Your task to perform on an android device: Open Android settings Image 0: 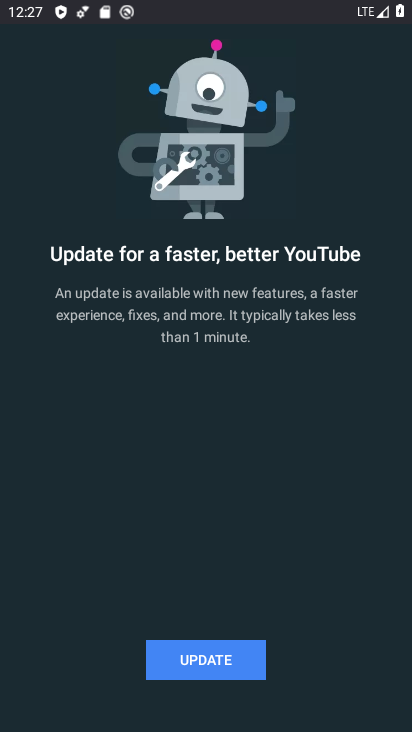
Step 0: press home button
Your task to perform on an android device: Open Android settings Image 1: 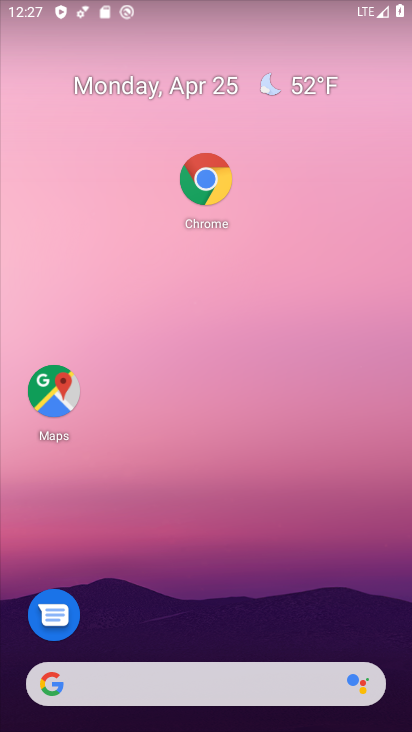
Step 1: drag from (175, 575) to (352, 136)
Your task to perform on an android device: Open Android settings Image 2: 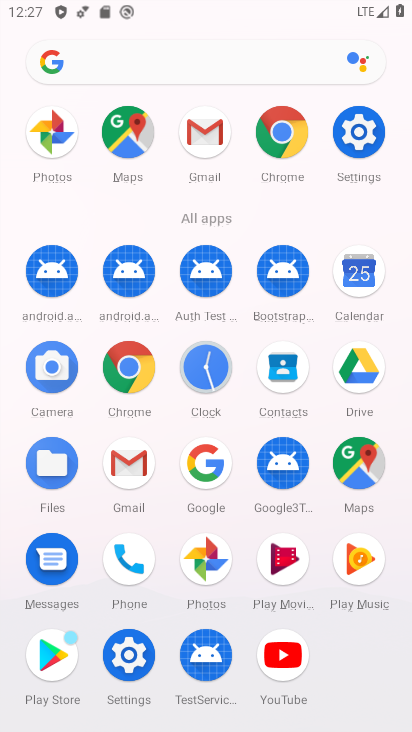
Step 2: click (361, 142)
Your task to perform on an android device: Open Android settings Image 3: 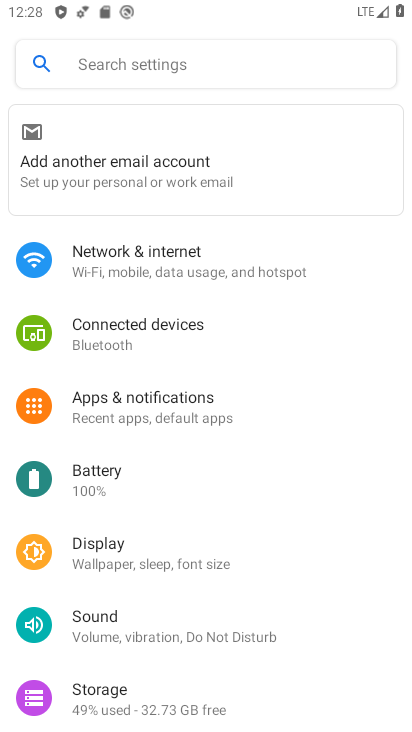
Step 3: task complete